Your task to perform on an android device: Go to calendar. Show me events next week Image 0: 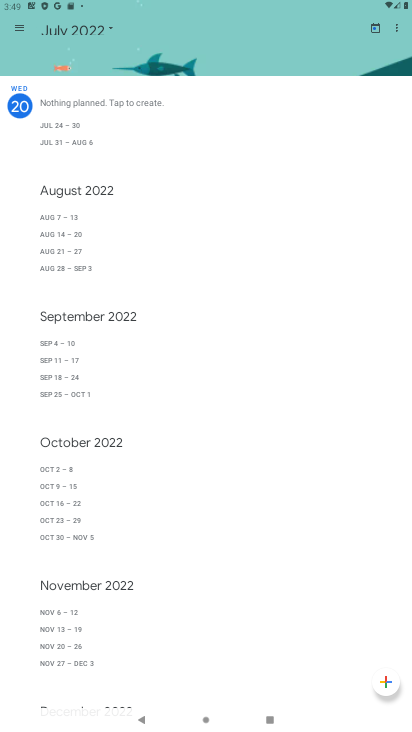
Step 0: press home button
Your task to perform on an android device: Go to calendar. Show me events next week Image 1: 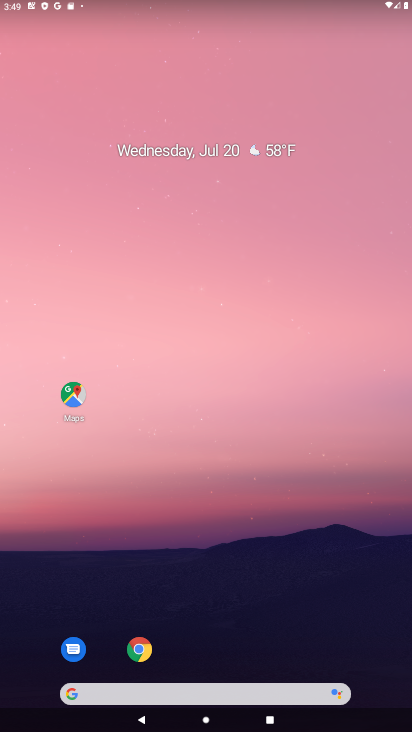
Step 1: drag from (230, 726) to (190, 299)
Your task to perform on an android device: Go to calendar. Show me events next week Image 2: 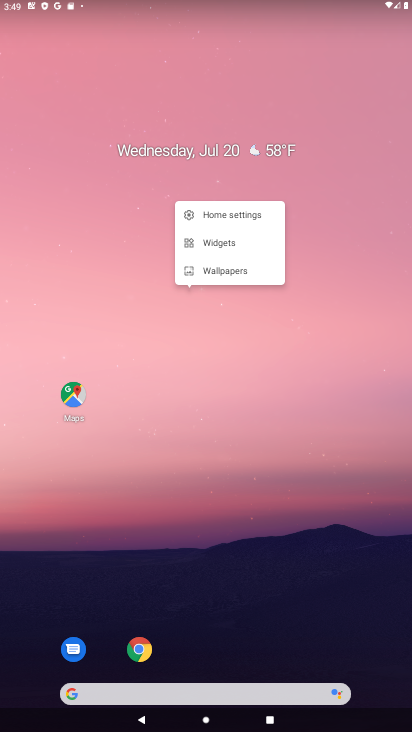
Step 2: click (218, 404)
Your task to perform on an android device: Go to calendar. Show me events next week Image 3: 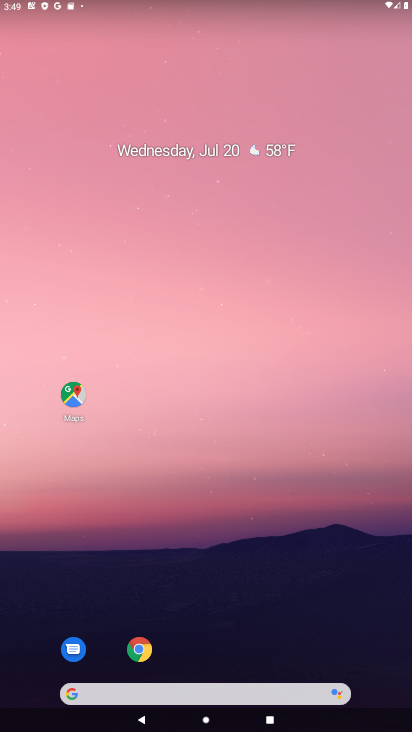
Step 3: drag from (222, 713) to (199, 357)
Your task to perform on an android device: Go to calendar. Show me events next week Image 4: 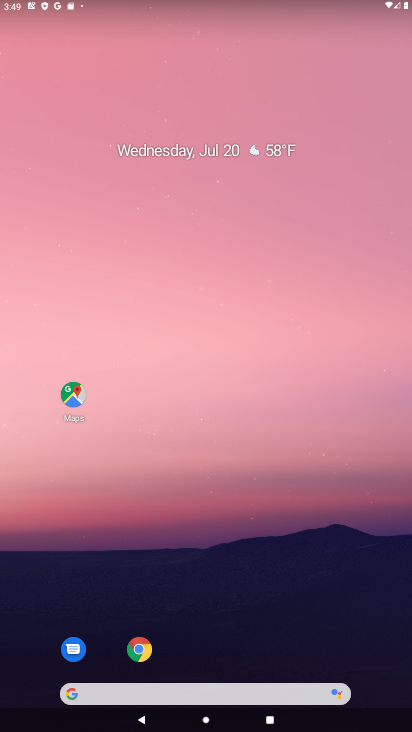
Step 4: drag from (232, 717) to (226, 629)
Your task to perform on an android device: Go to calendar. Show me events next week Image 5: 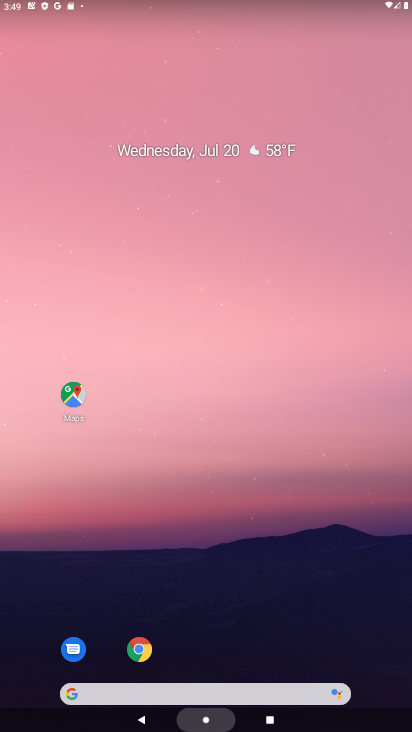
Step 5: click (173, 129)
Your task to perform on an android device: Go to calendar. Show me events next week Image 6: 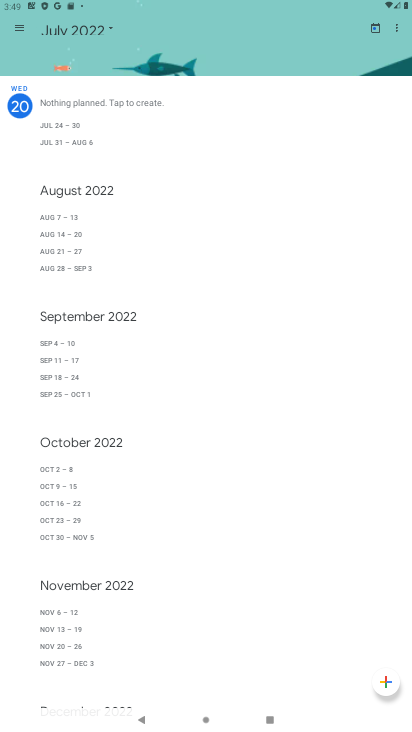
Step 6: press home button
Your task to perform on an android device: Go to calendar. Show me events next week Image 7: 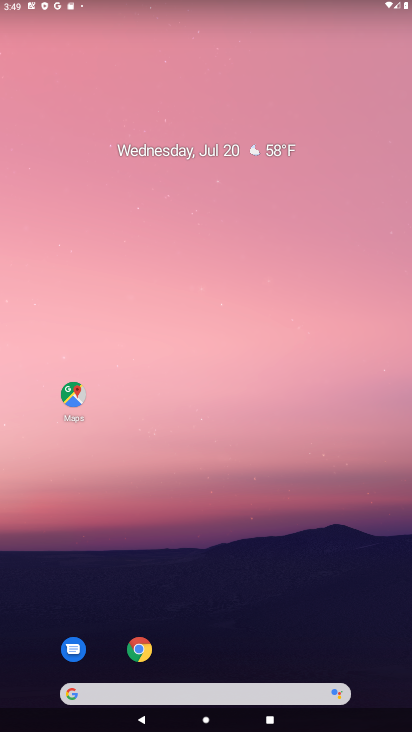
Step 7: drag from (226, 627) to (202, 215)
Your task to perform on an android device: Go to calendar. Show me events next week Image 8: 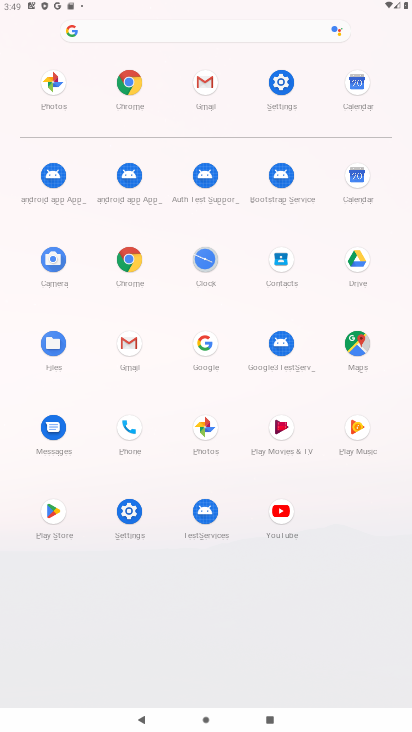
Step 8: click (365, 178)
Your task to perform on an android device: Go to calendar. Show me events next week Image 9: 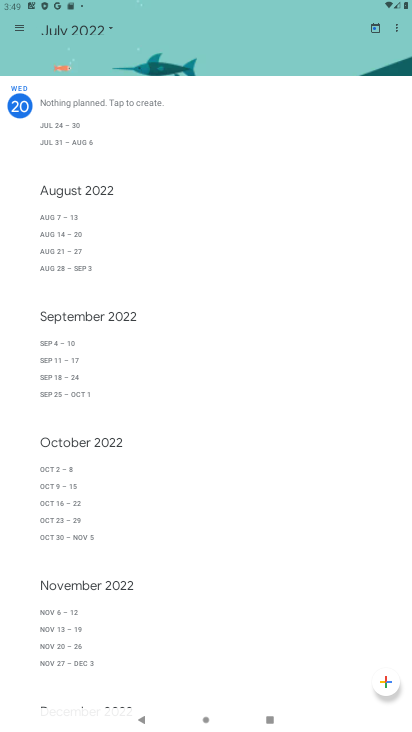
Step 9: click (111, 26)
Your task to perform on an android device: Go to calendar. Show me events next week Image 10: 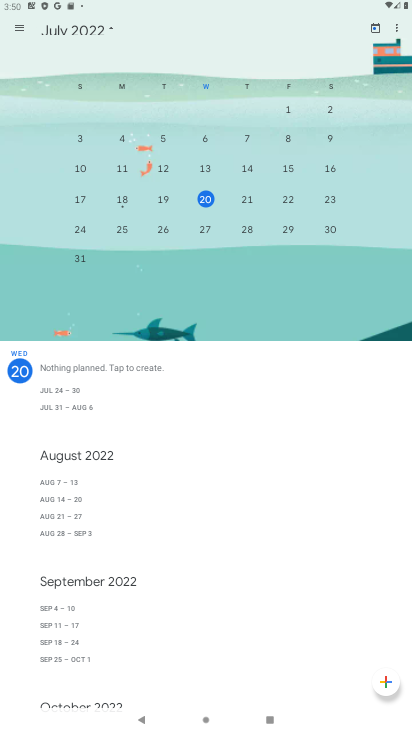
Step 10: click (290, 198)
Your task to perform on an android device: Go to calendar. Show me events next week Image 11: 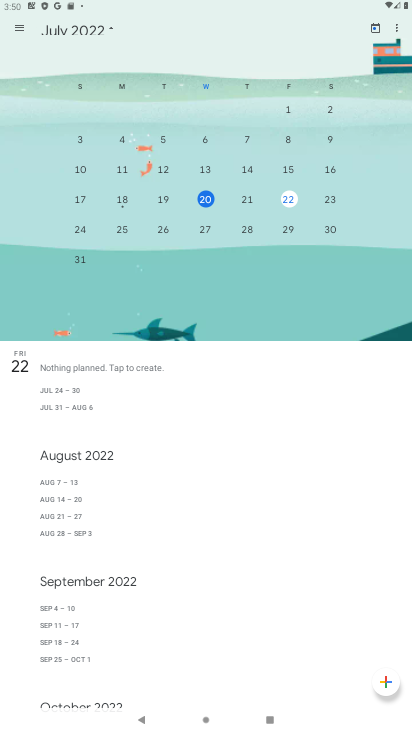
Step 11: click (287, 197)
Your task to perform on an android device: Go to calendar. Show me events next week Image 12: 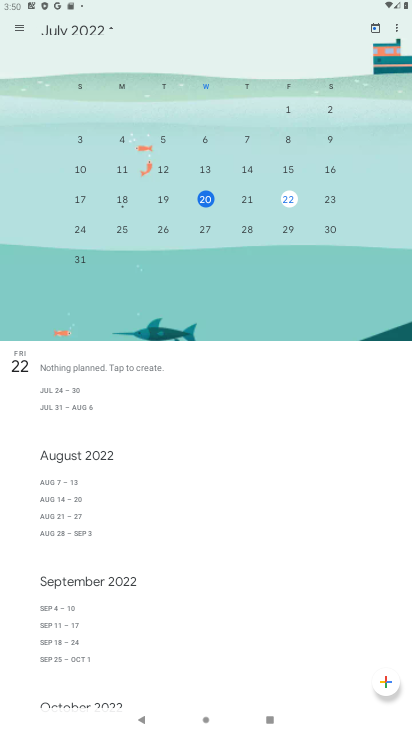
Step 12: click (18, 29)
Your task to perform on an android device: Go to calendar. Show me events next week Image 13: 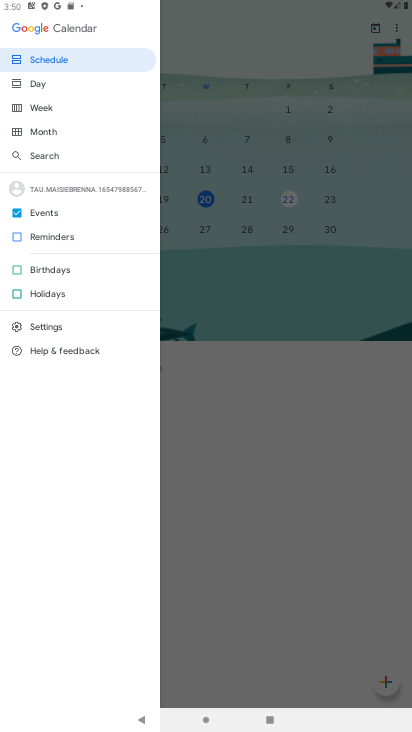
Step 13: click (18, 28)
Your task to perform on an android device: Go to calendar. Show me events next week Image 14: 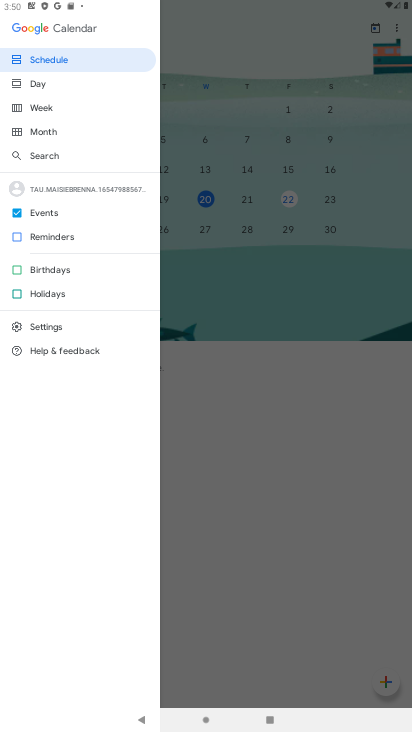
Step 14: click (381, 209)
Your task to perform on an android device: Go to calendar. Show me events next week Image 15: 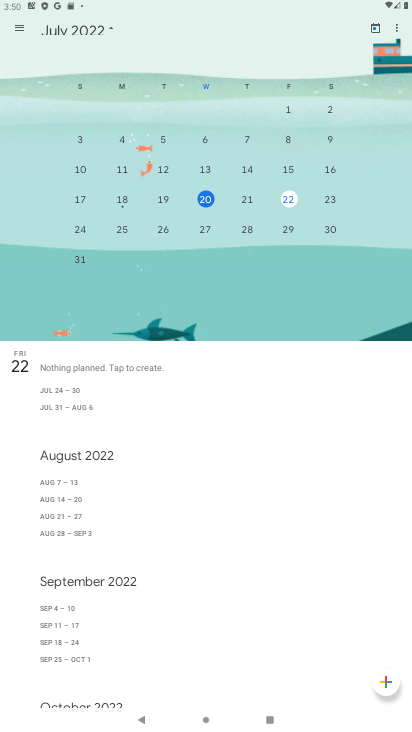
Step 15: click (84, 223)
Your task to perform on an android device: Go to calendar. Show me events next week Image 16: 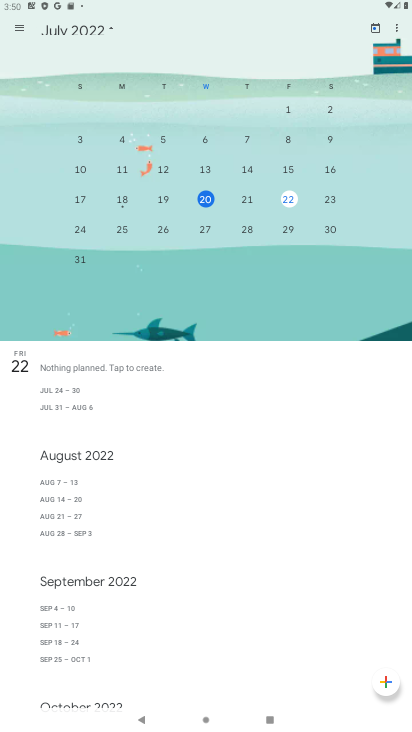
Step 16: click (122, 220)
Your task to perform on an android device: Go to calendar. Show me events next week Image 17: 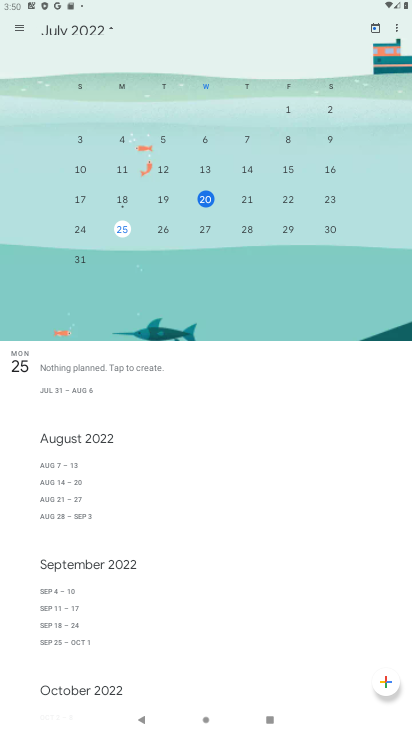
Step 17: click (123, 227)
Your task to perform on an android device: Go to calendar. Show me events next week Image 18: 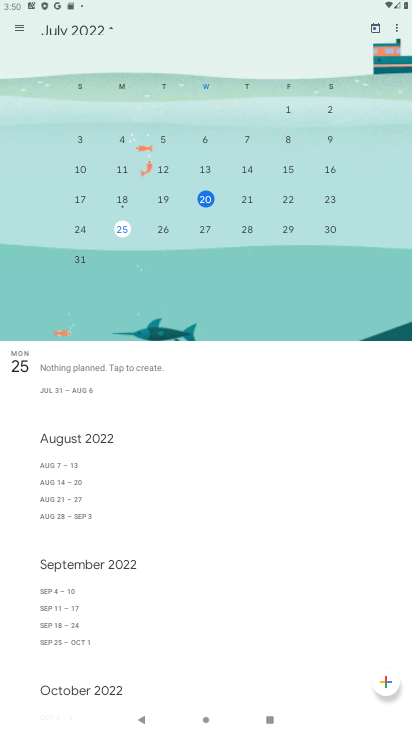
Step 18: click (21, 27)
Your task to perform on an android device: Go to calendar. Show me events next week Image 19: 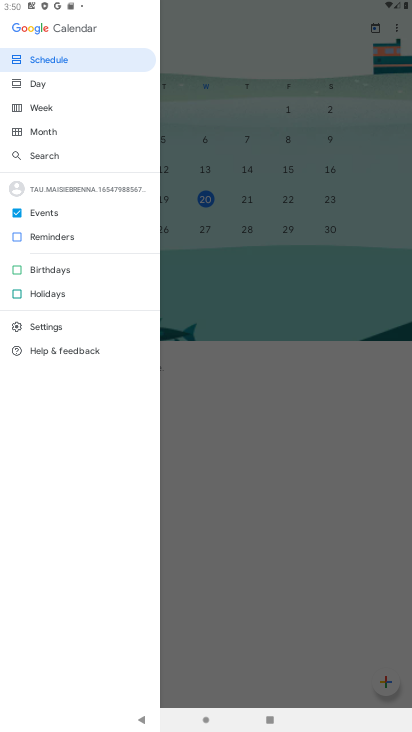
Step 19: click (40, 107)
Your task to perform on an android device: Go to calendar. Show me events next week Image 20: 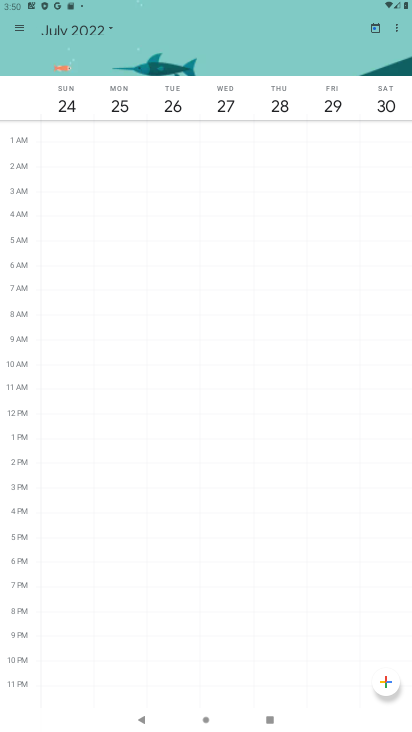
Step 20: task complete